Your task to perform on an android device: Search for Italian restaurants on Maps Image 0: 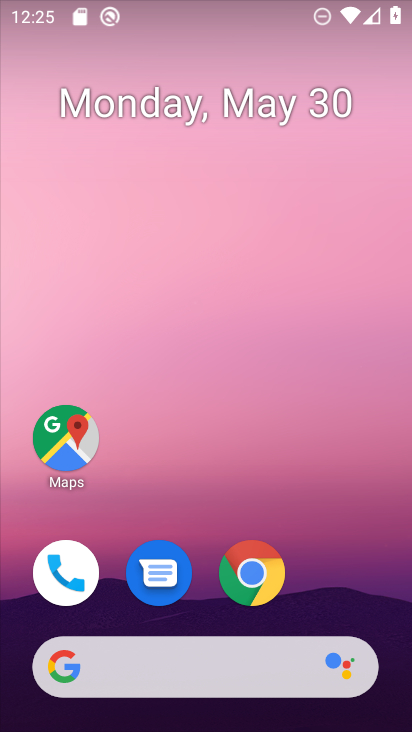
Step 0: press home button
Your task to perform on an android device: Search for Italian restaurants on Maps Image 1: 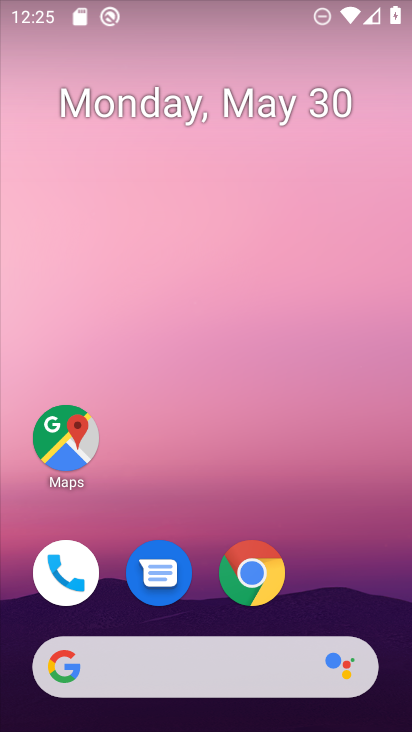
Step 1: click (53, 459)
Your task to perform on an android device: Search for Italian restaurants on Maps Image 2: 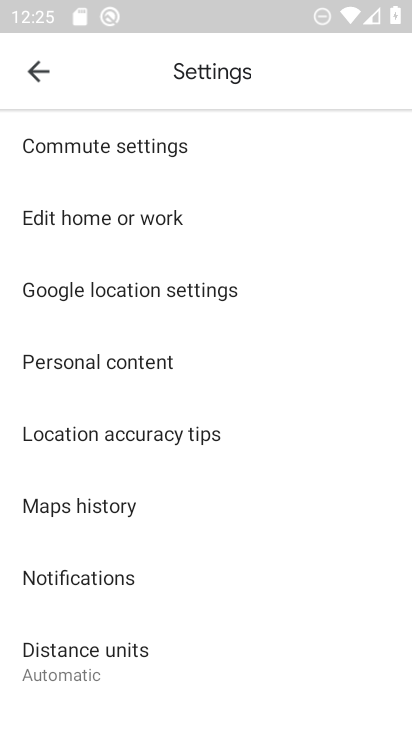
Step 2: click (35, 80)
Your task to perform on an android device: Search for Italian restaurants on Maps Image 3: 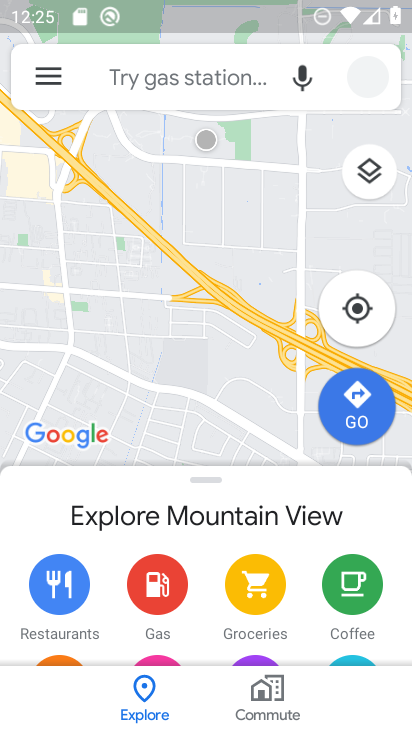
Step 3: click (35, 80)
Your task to perform on an android device: Search for Italian restaurants on Maps Image 4: 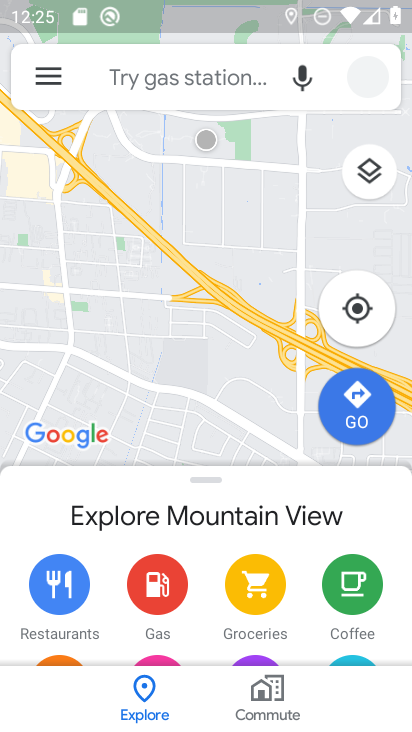
Step 4: click (147, 72)
Your task to perform on an android device: Search for Italian restaurants on Maps Image 5: 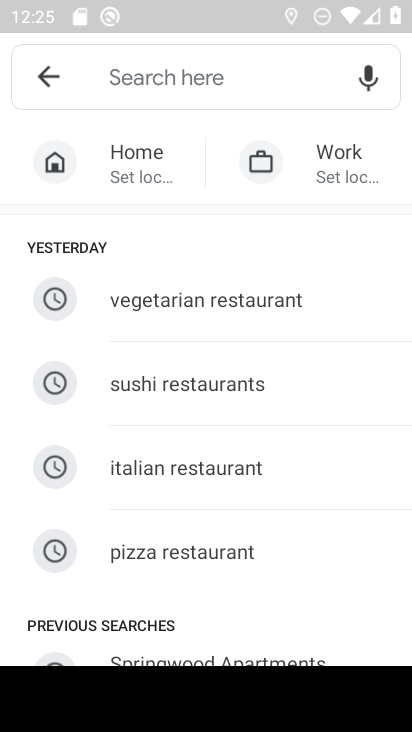
Step 5: click (195, 474)
Your task to perform on an android device: Search for Italian restaurants on Maps Image 6: 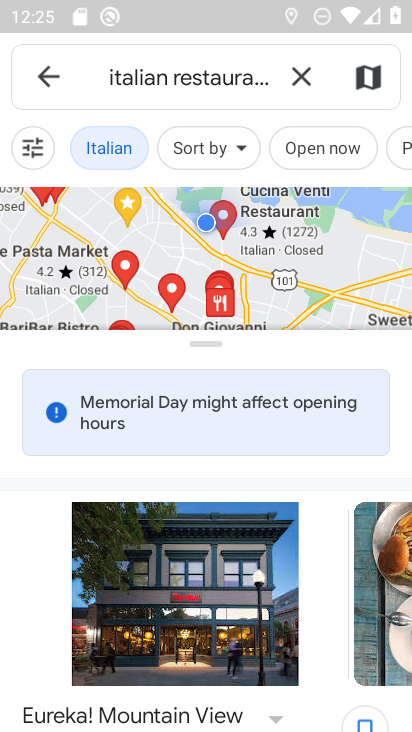
Step 6: task complete